Your task to perform on an android device: Search for Mexican restaurants on Maps Image 0: 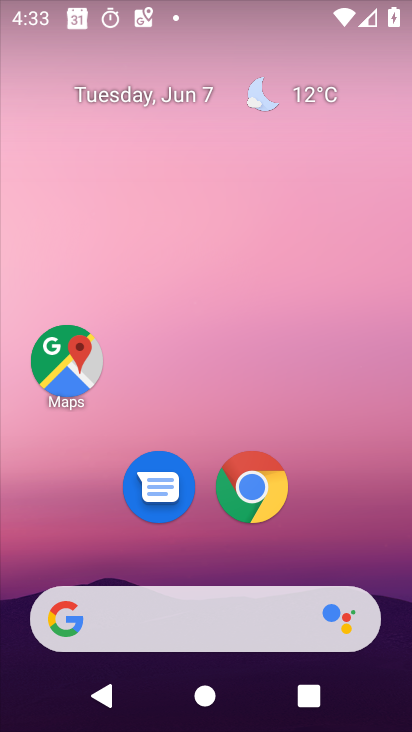
Step 0: click (77, 345)
Your task to perform on an android device: Search for Mexican restaurants on Maps Image 1: 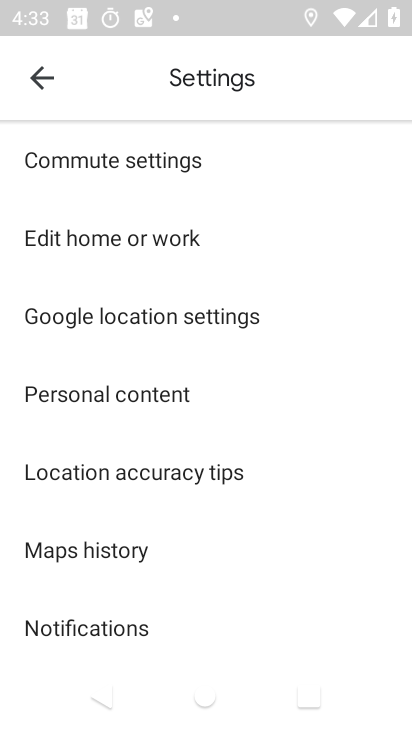
Step 1: press back button
Your task to perform on an android device: Search for Mexican restaurants on Maps Image 2: 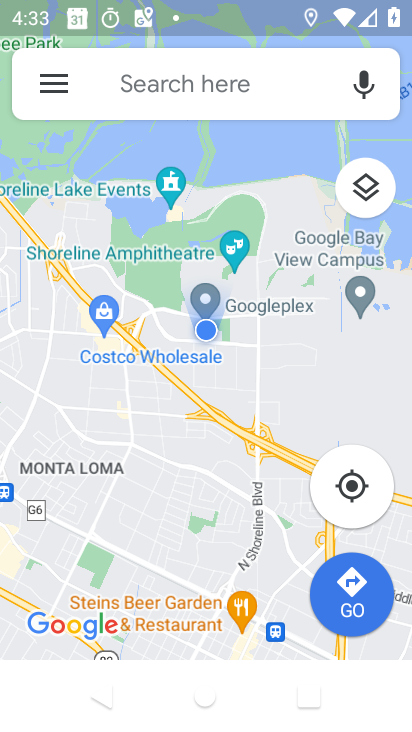
Step 2: click (132, 93)
Your task to perform on an android device: Search for Mexican restaurants on Maps Image 3: 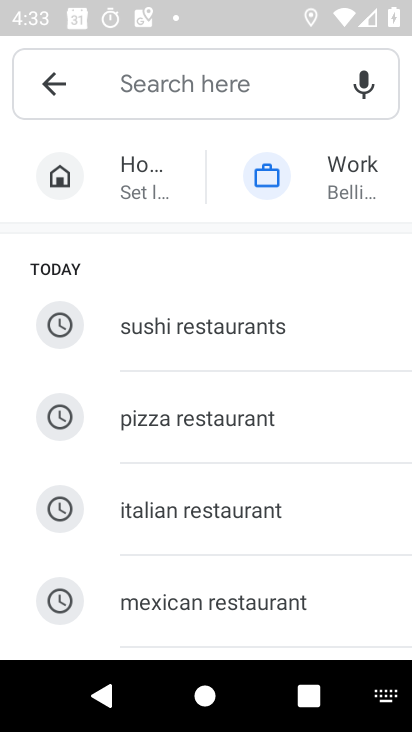
Step 3: click (191, 595)
Your task to perform on an android device: Search for Mexican restaurants on Maps Image 4: 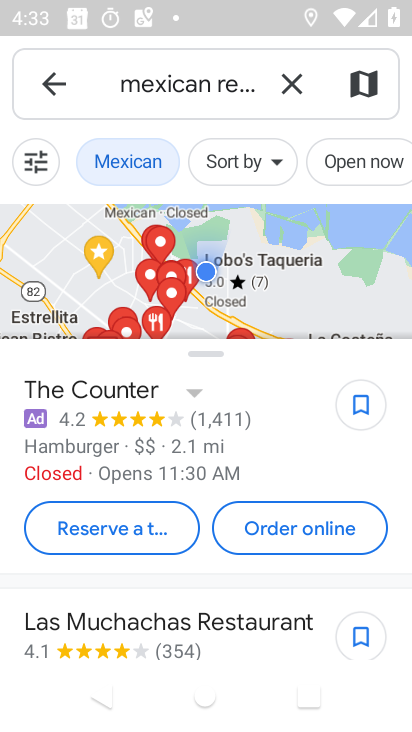
Step 4: task complete